Your task to perform on an android device: check android version Image 0: 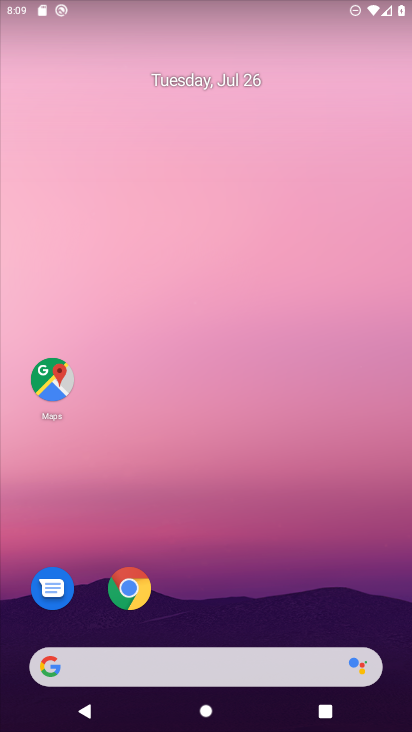
Step 0: drag from (214, 660) to (295, 149)
Your task to perform on an android device: check android version Image 1: 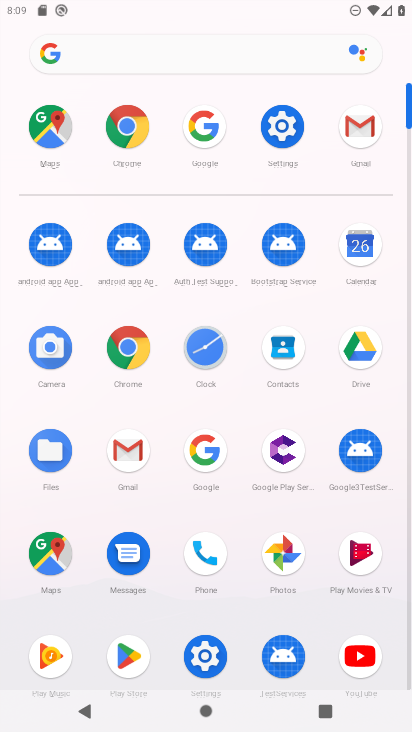
Step 1: click (287, 118)
Your task to perform on an android device: check android version Image 2: 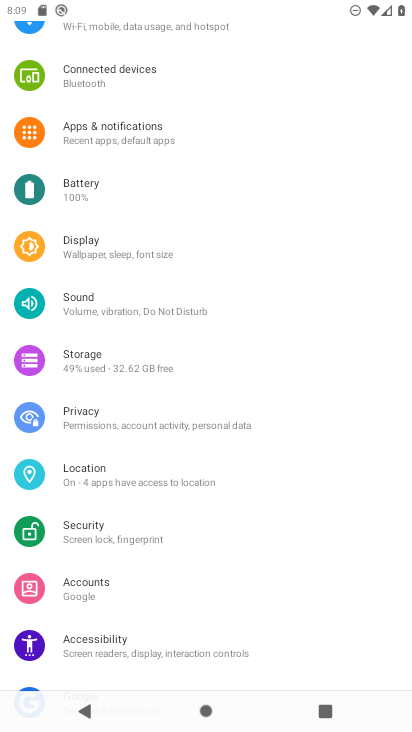
Step 2: drag from (89, 654) to (129, 218)
Your task to perform on an android device: check android version Image 3: 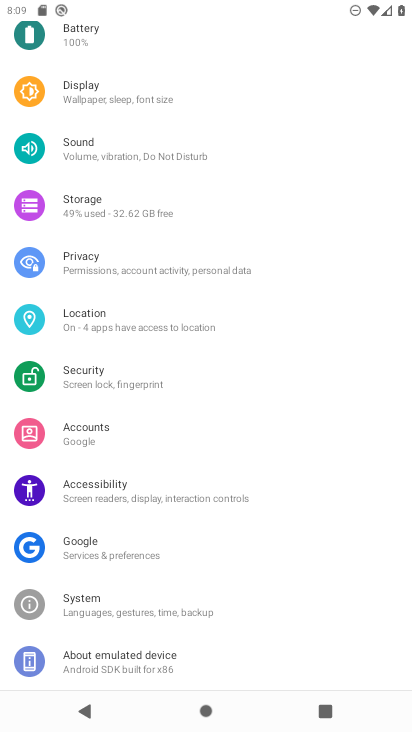
Step 3: click (104, 668)
Your task to perform on an android device: check android version Image 4: 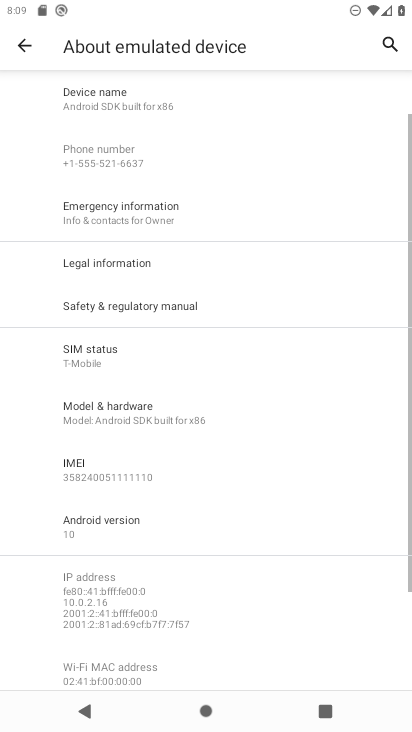
Step 4: click (77, 545)
Your task to perform on an android device: check android version Image 5: 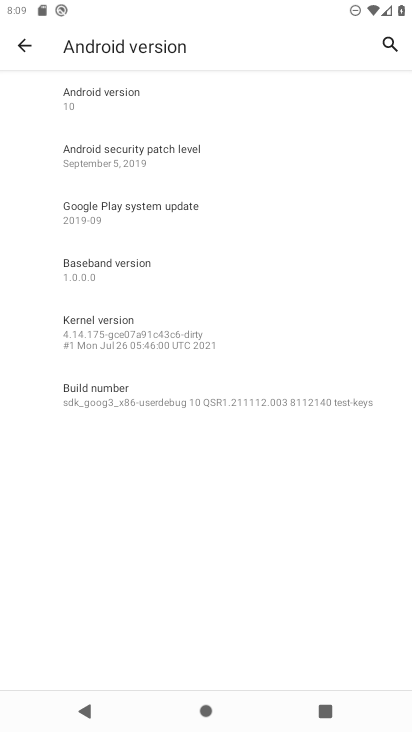
Step 5: task complete